Your task to perform on an android device: Open Google Image 0: 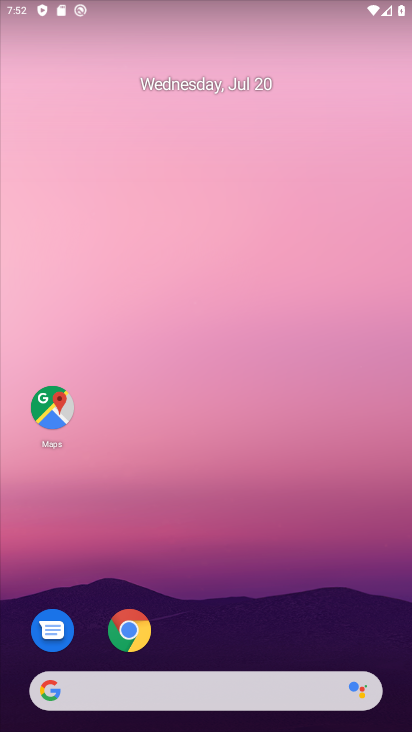
Step 0: drag from (264, 598) to (175, 8)
Your task to perform on an android device: Open Google Image 1: 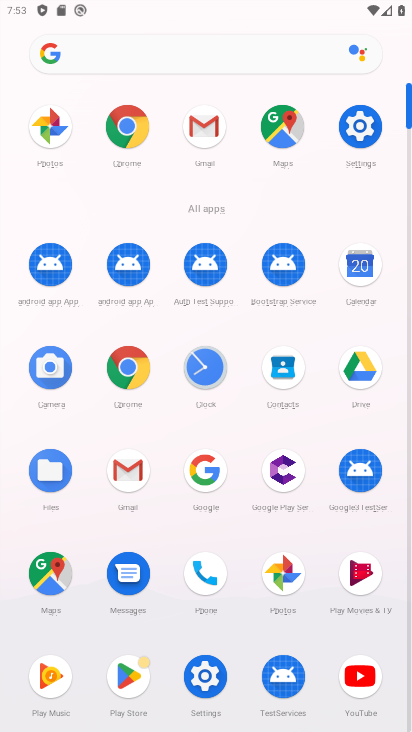
Step 1: click (202, 477)
Your task to perform on an android device: Open Google Image 2: 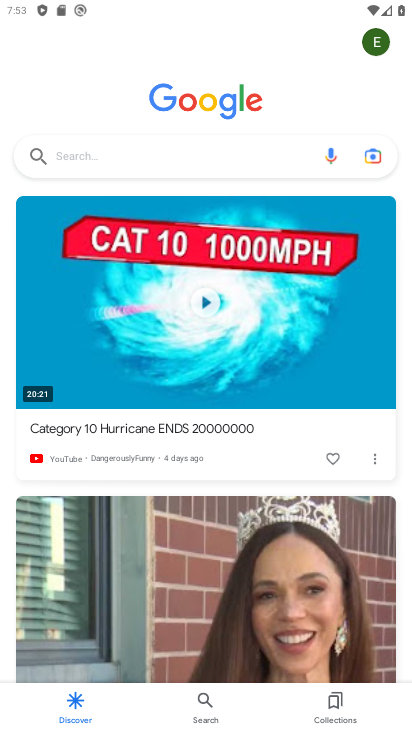
Step 2: task complete